Your task to perform on an android device: Open eBay Image 0: 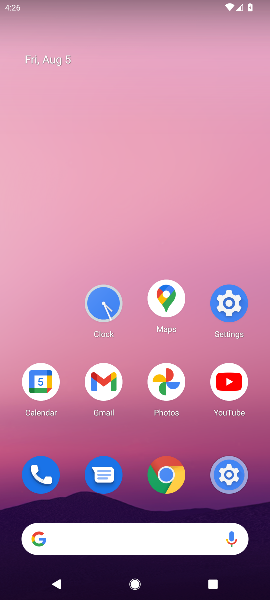
Step 0: click (163, 477)
Your task to perform on an android device: Open eBay Image 1: 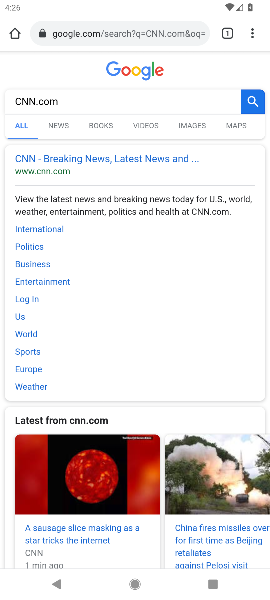
Step 1: click (187, 37)
Your task to perform on an android device: Open eBay Image 2: 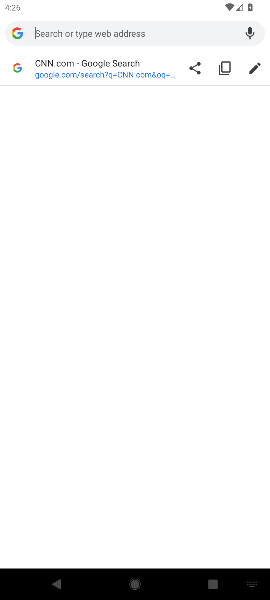
Step 2: type "eBay"
Your task to perform on an android device: Open eBay Image 3: 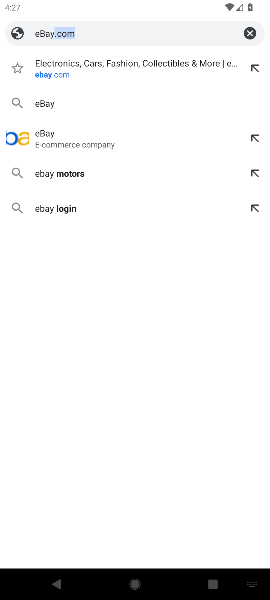
Step 3: click (39, 100)
Your task to perform on an android device: Open eBay Image 4: 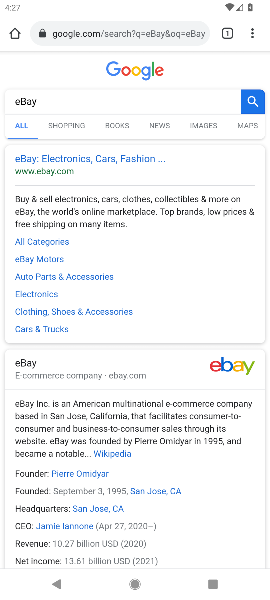
Step 4: task complete